Your task to perform on an android device: Go to Google maps Image 0: 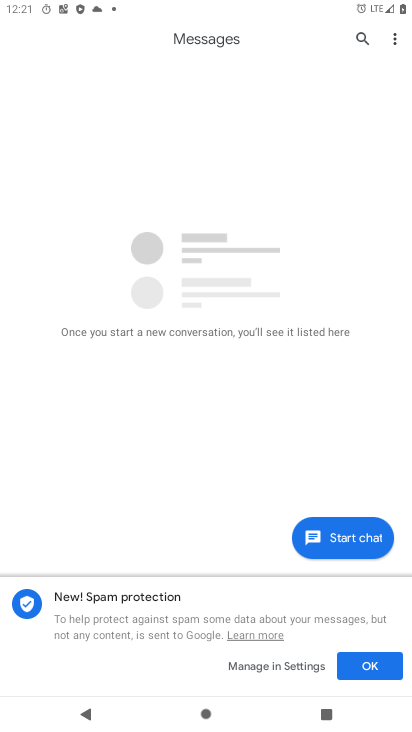
Step 0: press home button
Your task to perform on an android device: Go to Google maps Image 1: 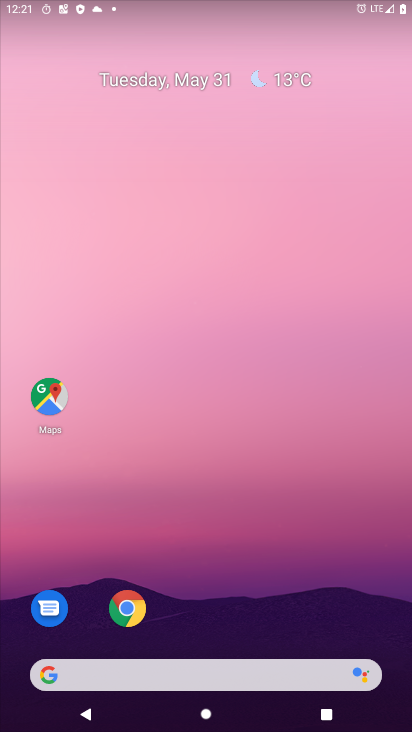
Step 1: click (52, 396)
Your task to perform on an android device: Go to Google maps Image 2: 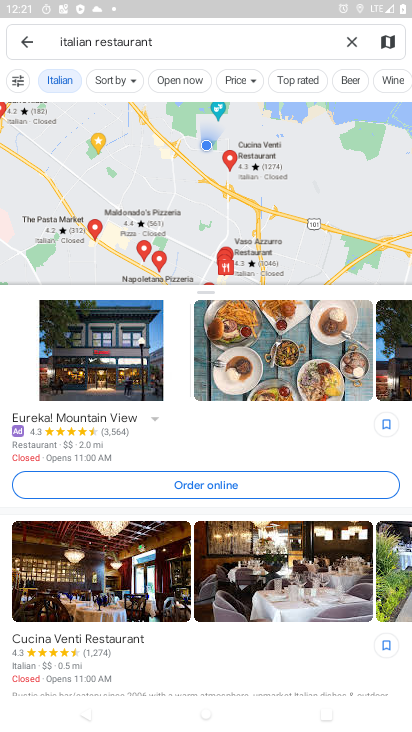
Step 2: task complete